Your task to perform on an android device: turn off notifications settings in the gmail app Image 0: 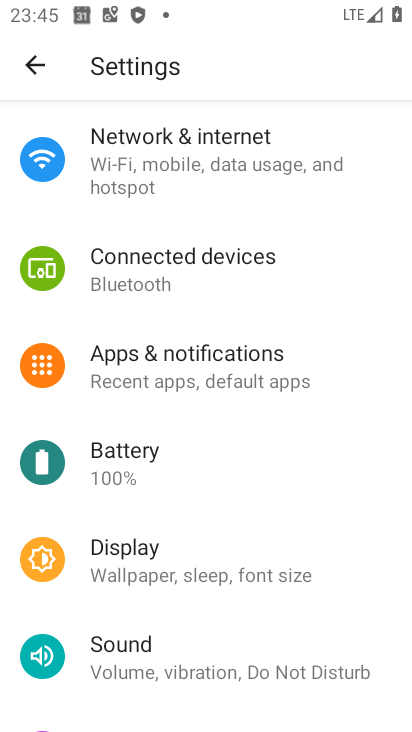
Step 0: click (179, 363)
Your task to perform on an android device: turn off notifications settings in the gmail app Image 1: 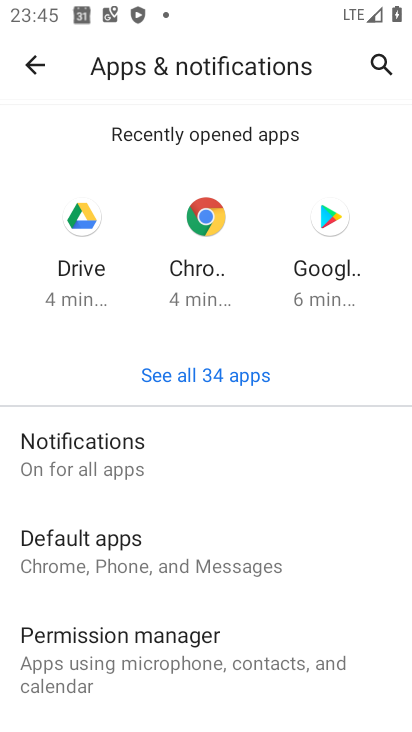
Step 1: click (160, 469)
Your task to perform on an android device: turn off notifications settings in the gmail app Image 2: 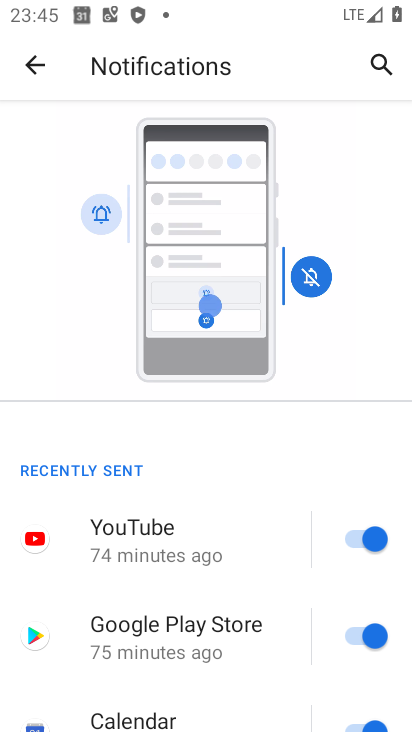
Step 2: drag from (186, 665) to (218, 139)
Your task to perform on an android device: turn off notifications settings in the gmail app Image 3: 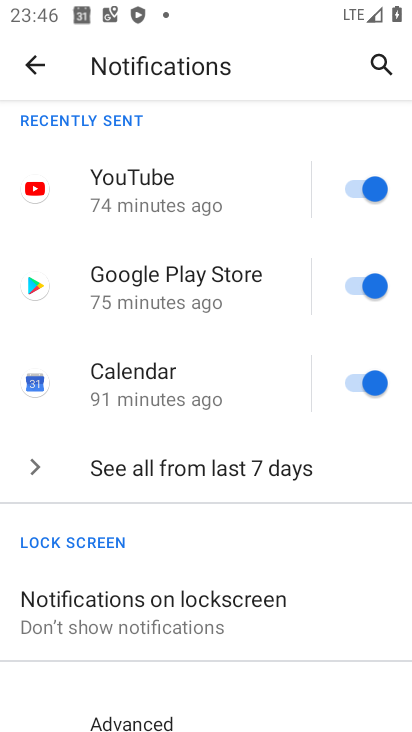
Step 3: click (196, 635)
Your task to perform on an android device: turn off notifications settings in the gmail app Image 4: 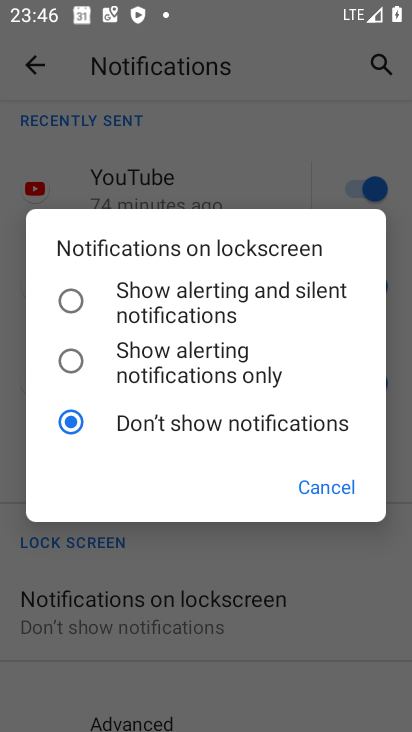
Step 4: task complete